Your task to perform on an android device: add a label to a message in the gmail app Image 0: 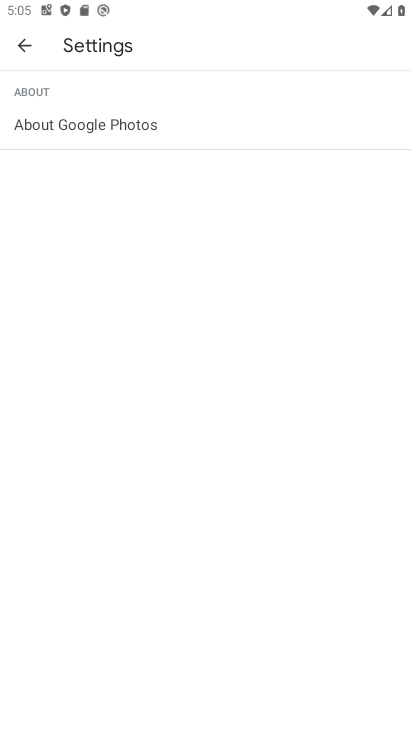
Step 0: press home button
Your task to perform on an android device: add a label to a message in the gmail app Image 1: 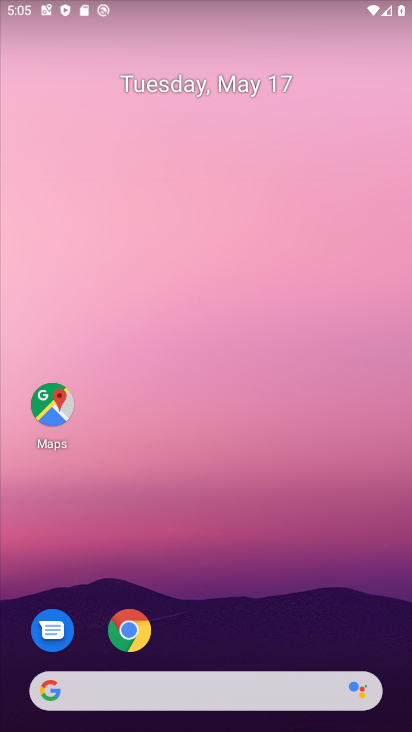
Step 1: drag from (294, 635) to (222, 98)
Your task to perform on an android device: add a label to a message in the gmail app Image 2: 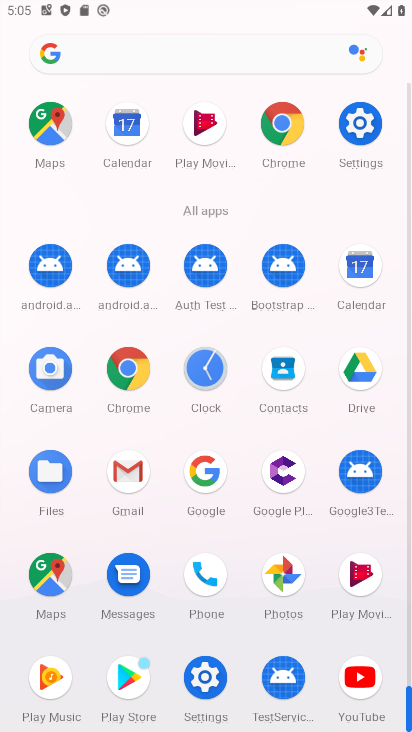
Step 2: click (128, 468)
Your task to perform on an android device: add a label to a message in the gmail app Image 3: 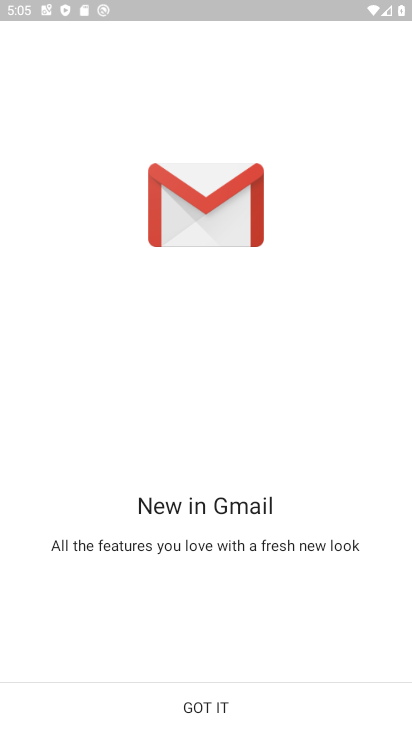
Step 3: click (221, 717)
Your task to perform on an android device: add a label to a message in the gmail app Image 4: 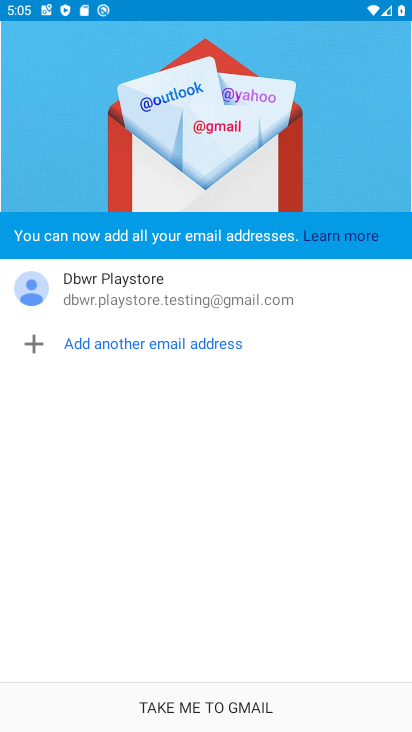
Step 4: click (191, 715)
Your task to perform on an android device: add a label to a message in the gmail app Image 5: 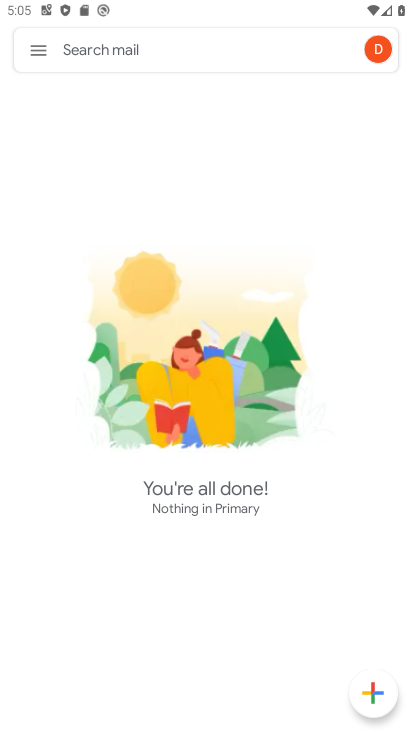
Step 5: click (37, 45)
Your task to perform on an android device: add a label to a message in the gmail app Image 6: 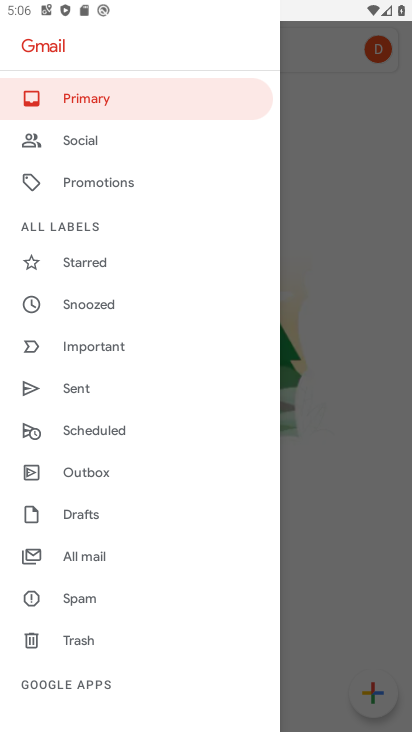
Step 6: click (94, 560)
Your task to perform on an android device: add a label to a message in the gmail app Image 7: 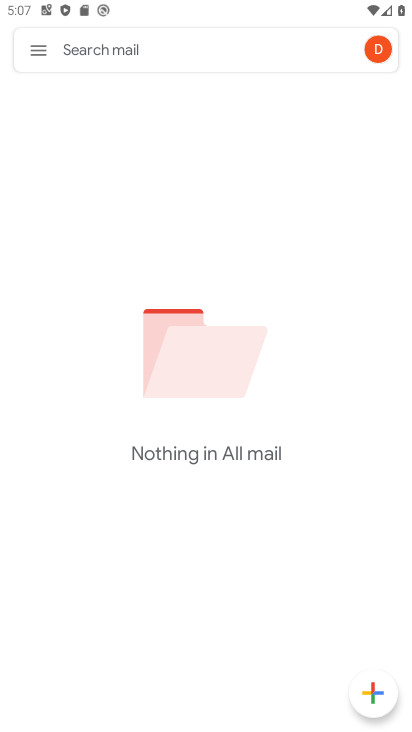
Step 7: task complete